Your task to perform on an android device: turn off javascript in the chrome app Image 0: 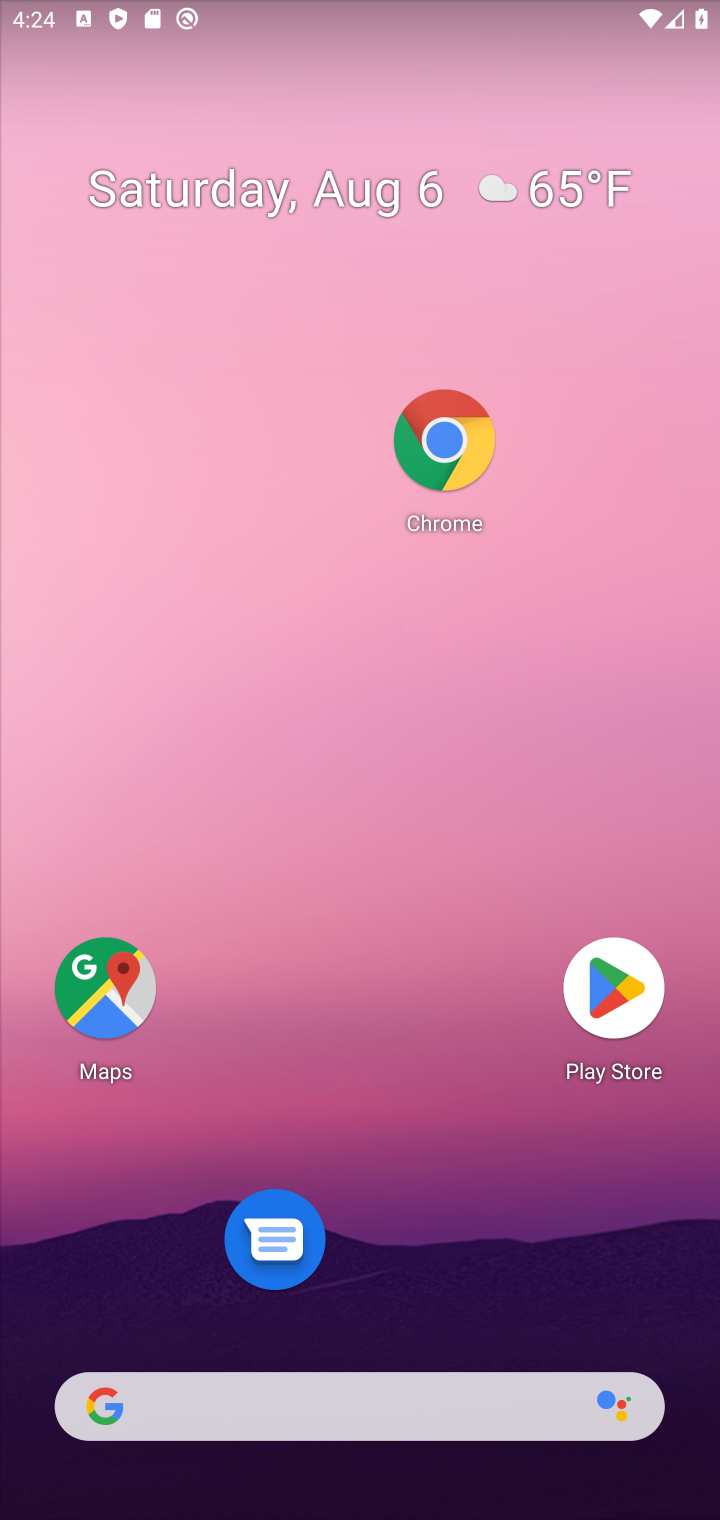
Step 0: drag from (391, 1328) to (391, 238)
Your task to perform on an android device: turn off javascript in the chrome app Image 1: 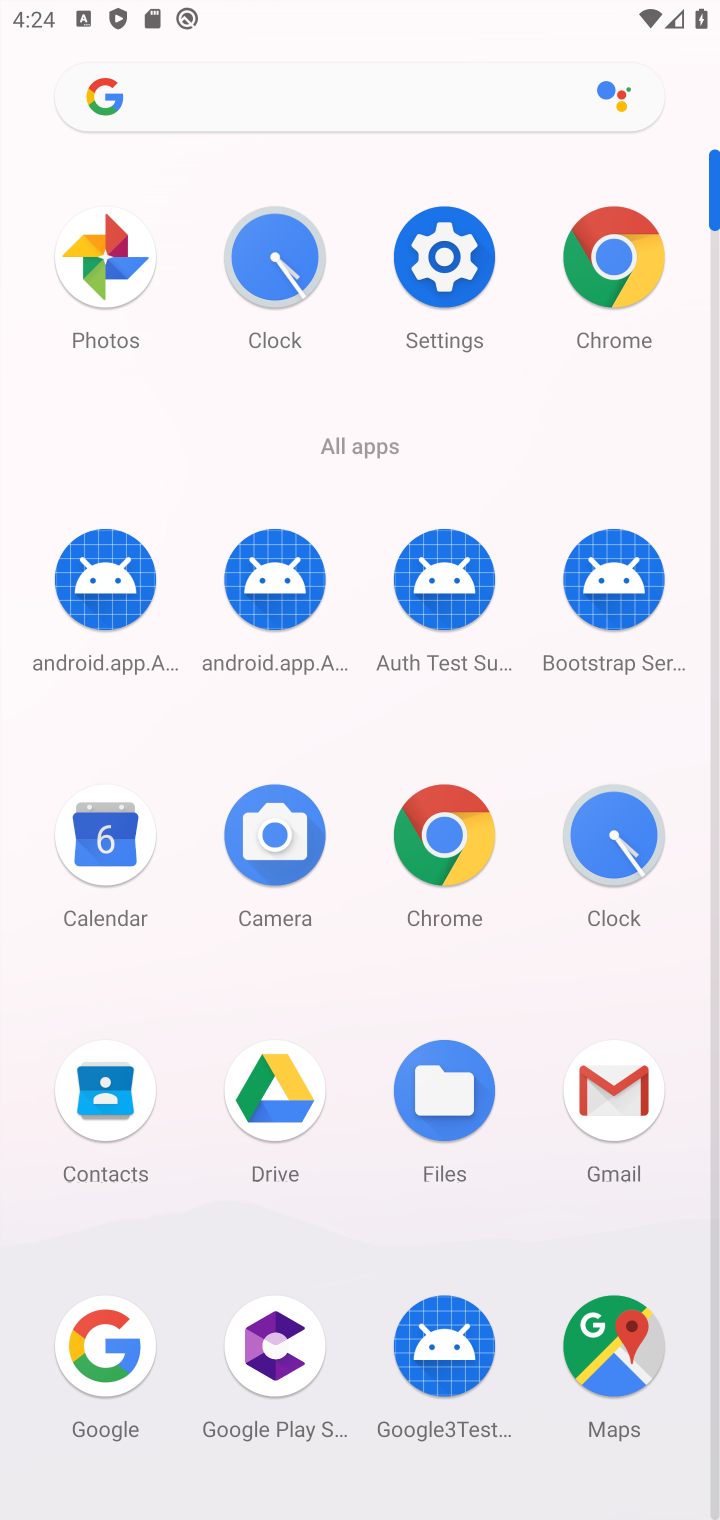
Step 1: click (453, 845)
Your task to perform on an android device: turn off javascript in the chrome app Image 2: 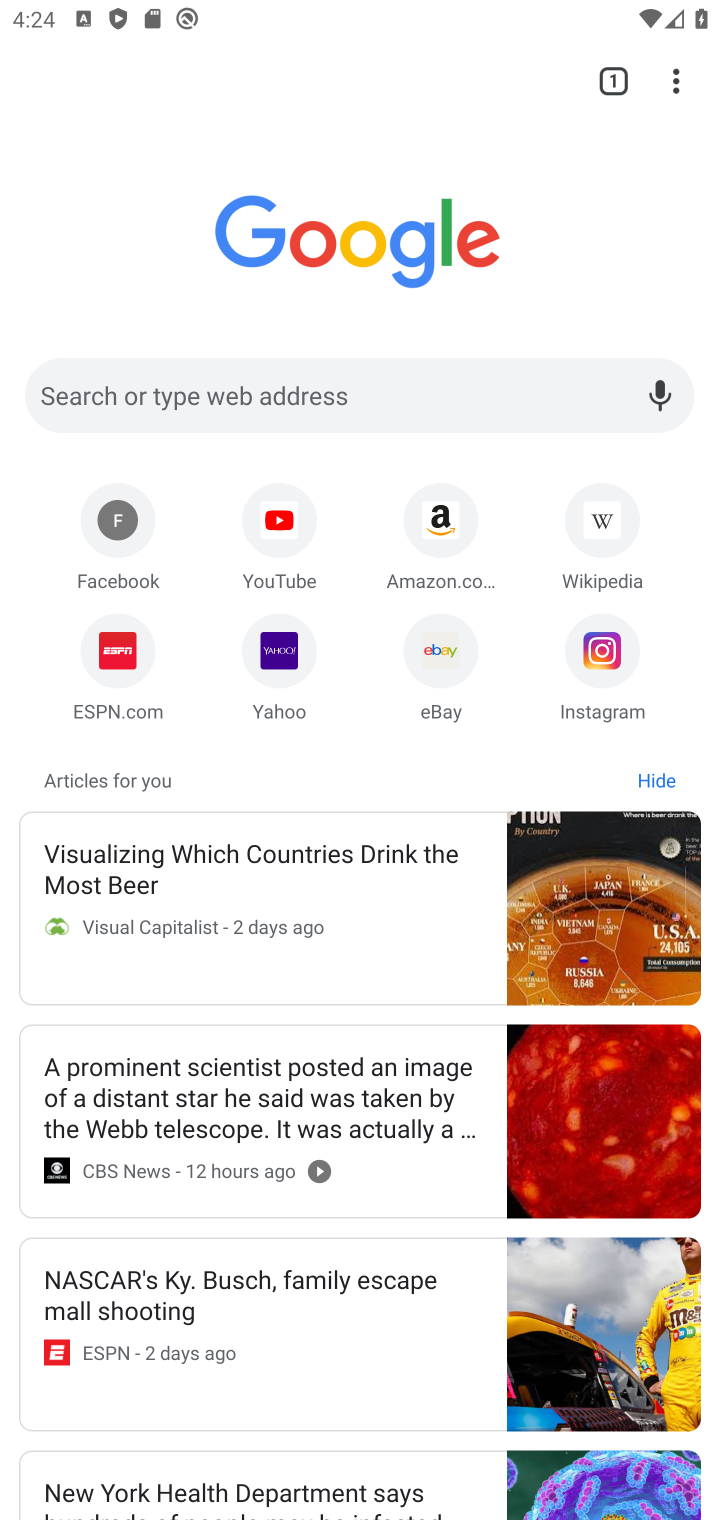
Step 2: drag from (677, 66) to (437, 687)
Your task to perform on an android device: turn off javascript in the chrome app Image 3: 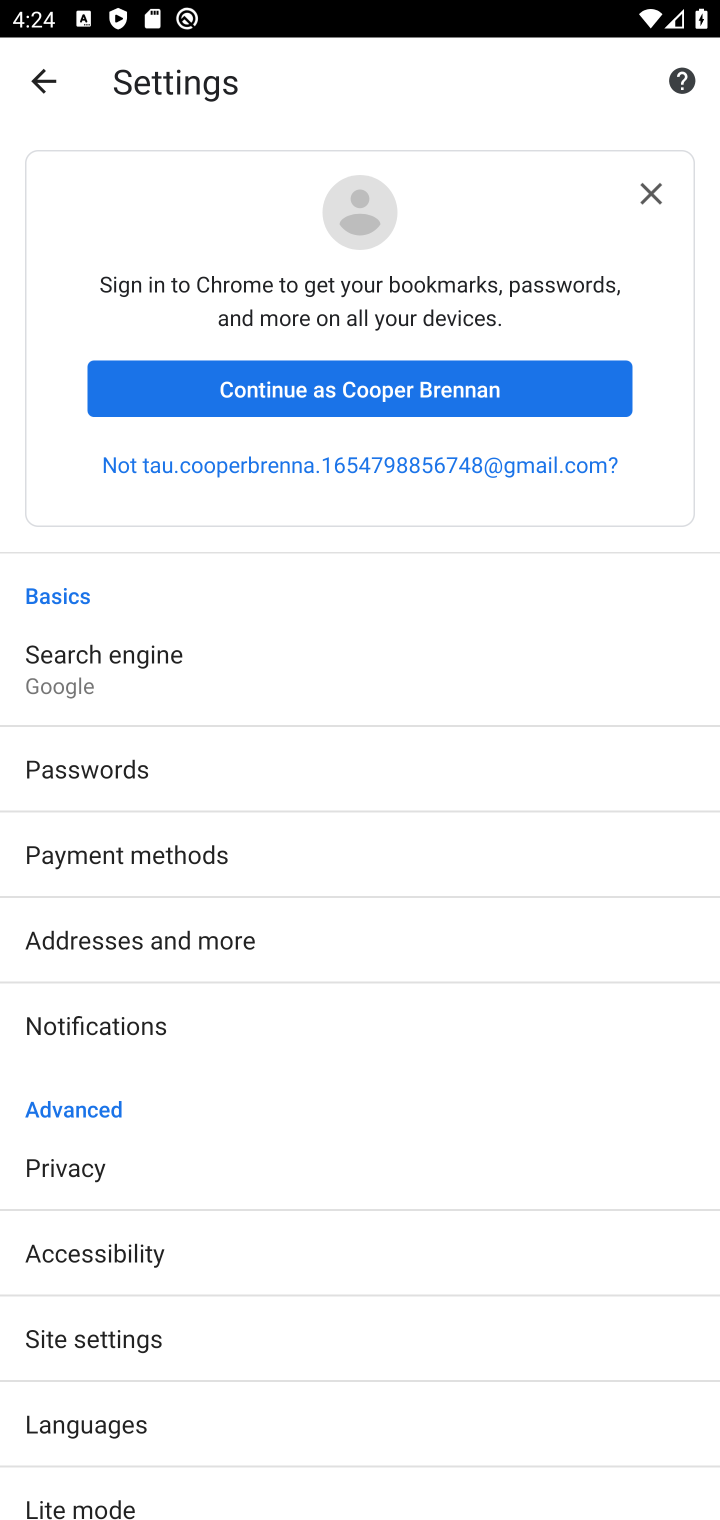
Step 3: click (257, 1350)
Your task to perform on an android device: turn off javascript in the chrome app Image 4: 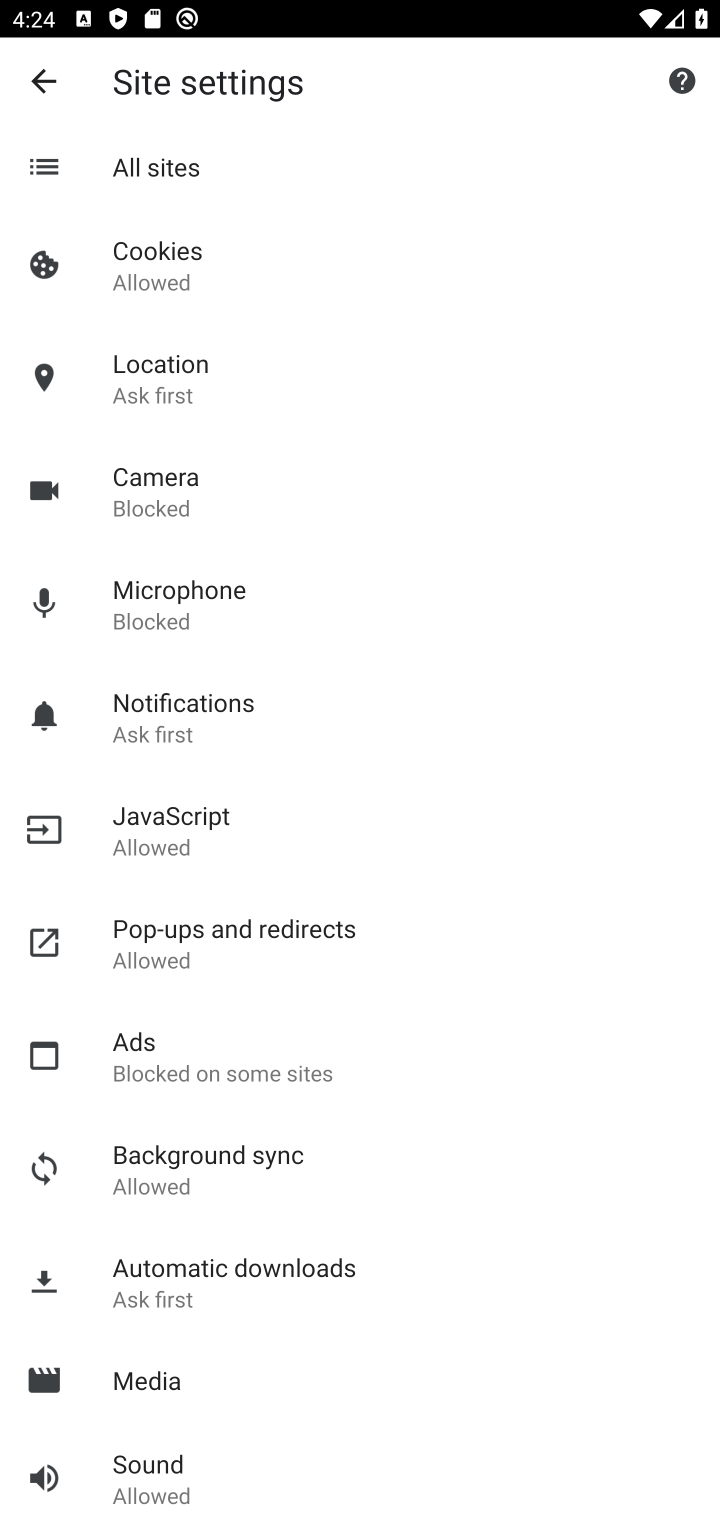
Step 4: click (208, 819)
Your task to perform on an android device: turn off javascript in the chrome app Image 5: 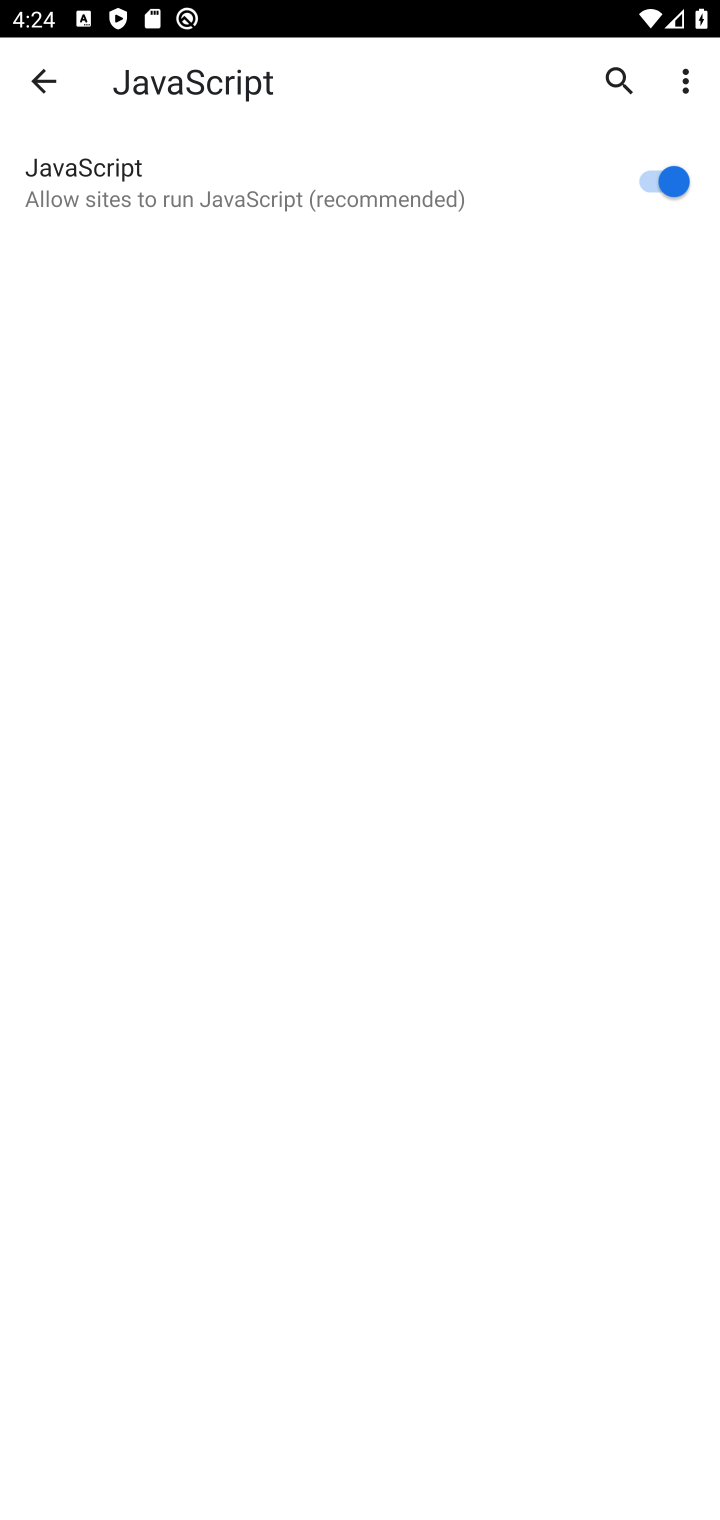
Step 5: click (667, 179)
Your task to perform on an android device: turn off javascript in the chrome app Image 6: 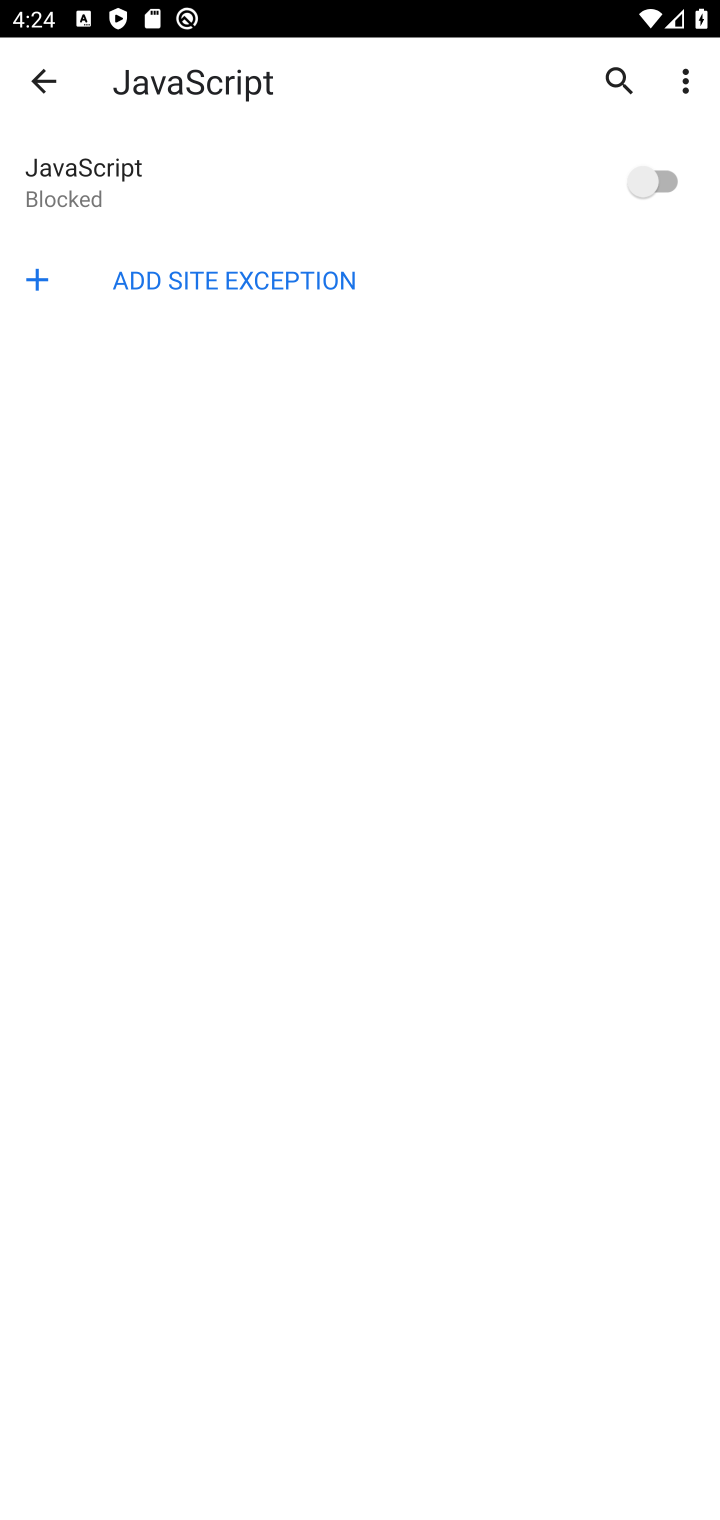
Step 6: task complete